Your task to perform on an android device: Go to eBay Image 0: 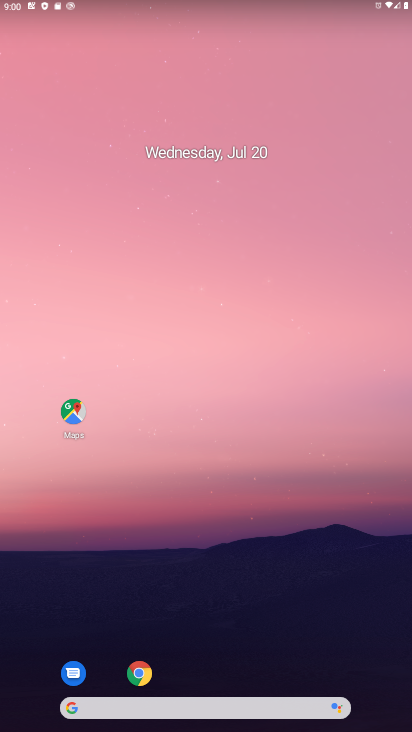
Step 0: click (142, 675)
Your task to perform on an android device: Go to eBay Image 1: 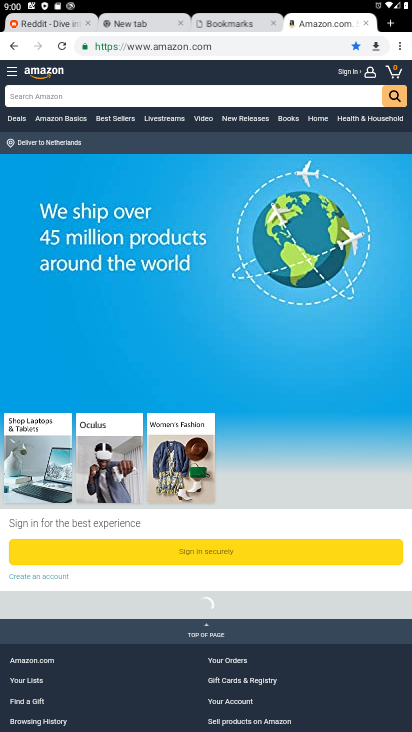
Step 1: click (400, 52)
Your task to perform on an android device: Go to eBay Image 2: 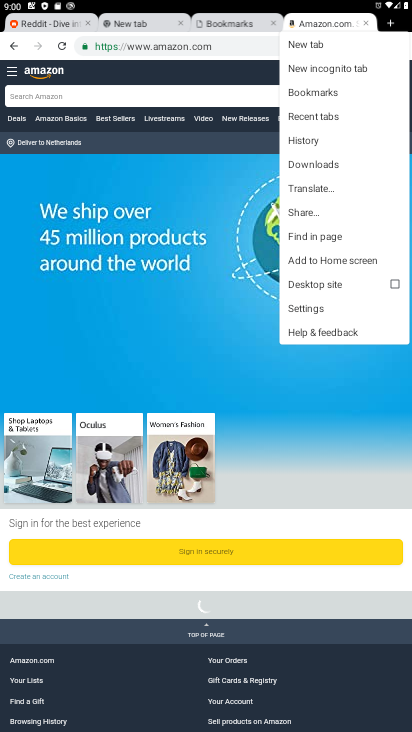
Step 2: click (315, 42)
Your task to perform on an android device: Go to eBay Image 3: 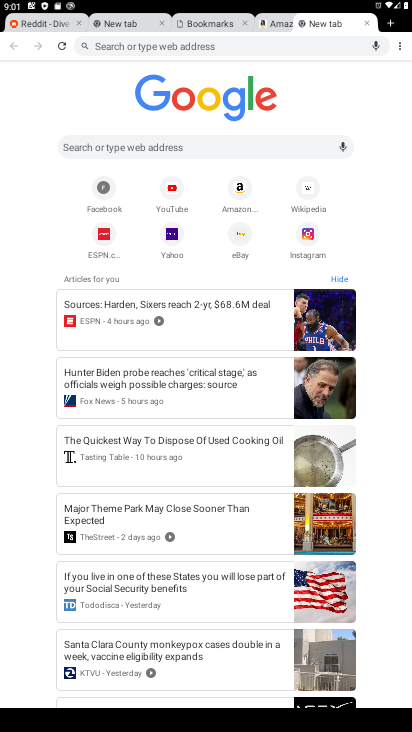
Step 3: click (241, 236)
Your task to perform on an android device: Go to eBay Image 4: 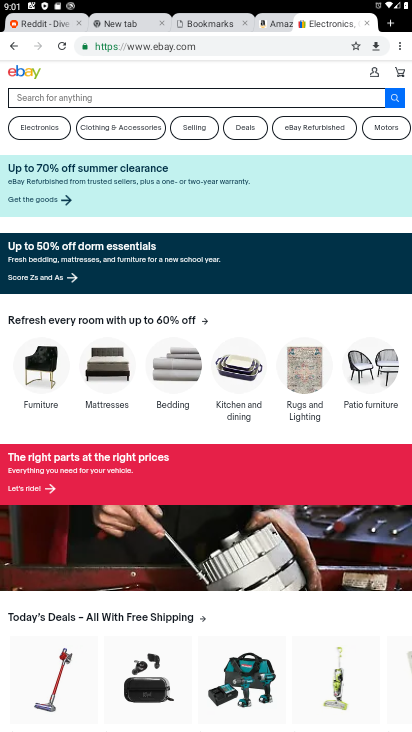
Step 4: task complete